Your task to perform on an android device: Open Google Maps Image 0: 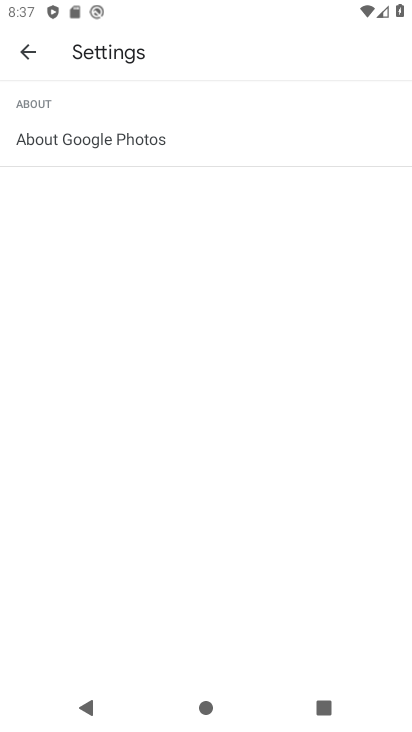
Step 0: press home button
Your task to perform on an android device: Open Google Maps Image 1: 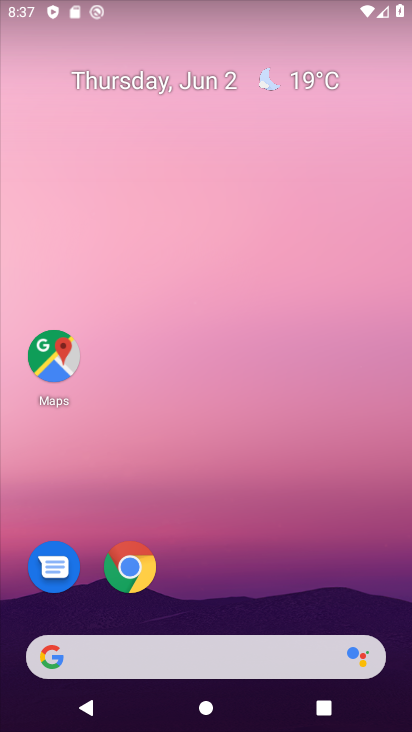
Step 1: click (64, 372)
Your task to perform on an android device: Open Google Maps Image 2: 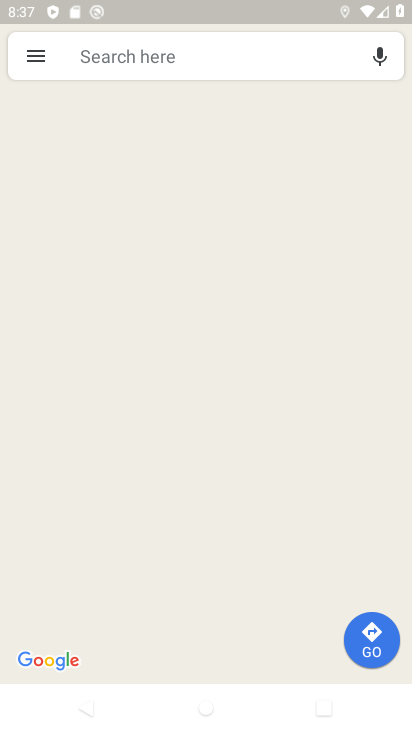
Step 2: task complete